Your task to perform on an android device: Go to notification settings Image 0: 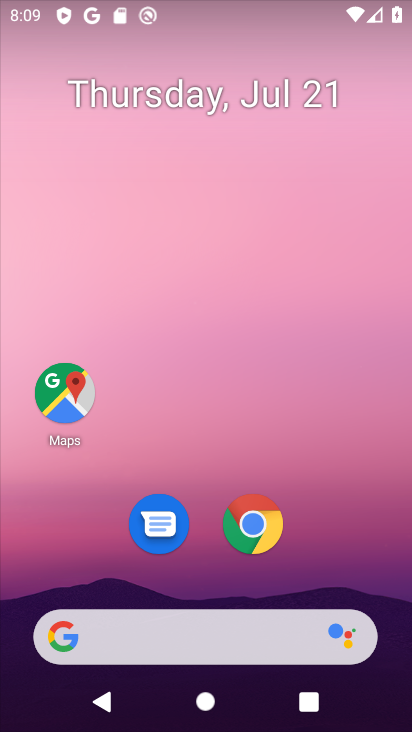
Step 0: press home button
Your task to perform on an android device: Go to notification settings Image 1: 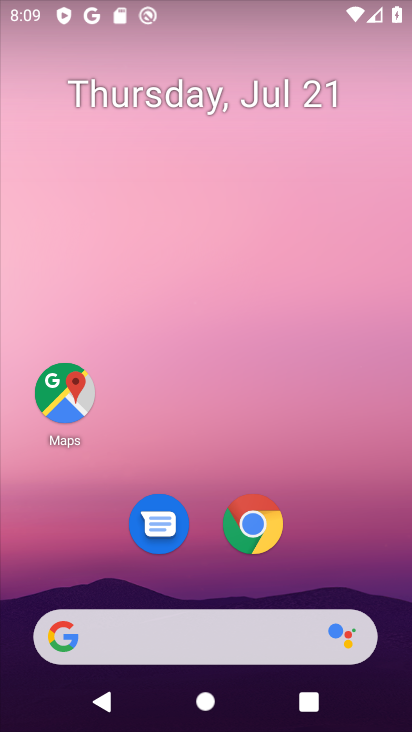
Step 1: drag from (214, 643) to (336, 64)
Your task to perform on an android device: Go to notification settings Image 2: 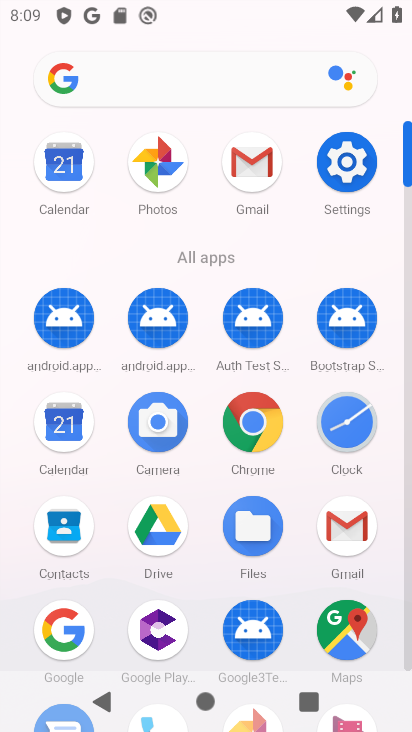
Step 2: click (350, 170)
Your task to perform on an android device: Go to notification settings Image 3: 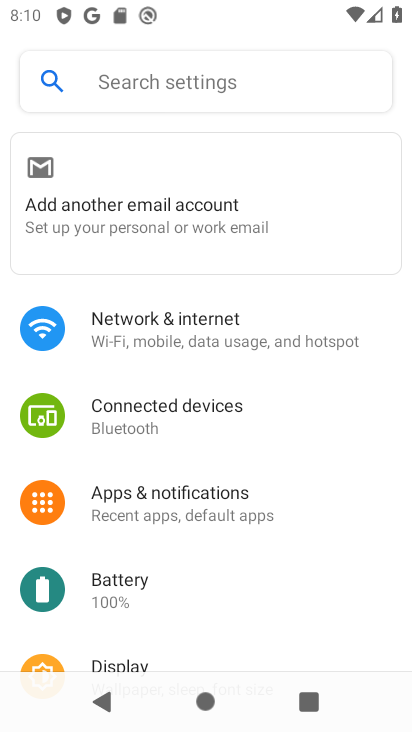
Step 3: click (210, 499)
Your task to perform on an android device: Go to notification settings Image 4: 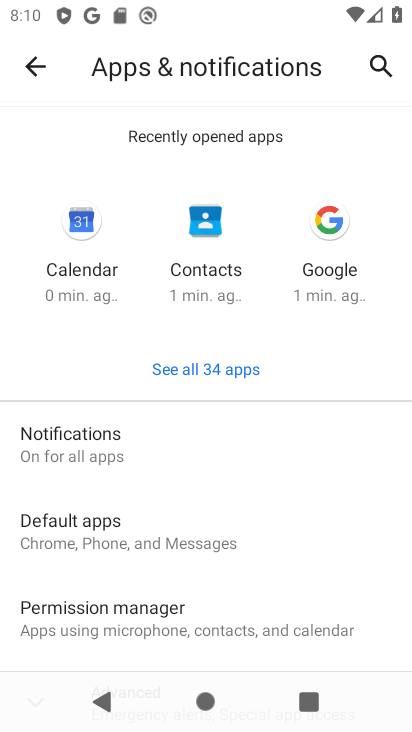
Step 4: click (87, 446)
Your task to perform on an android device: Go to notification settings Image 5: 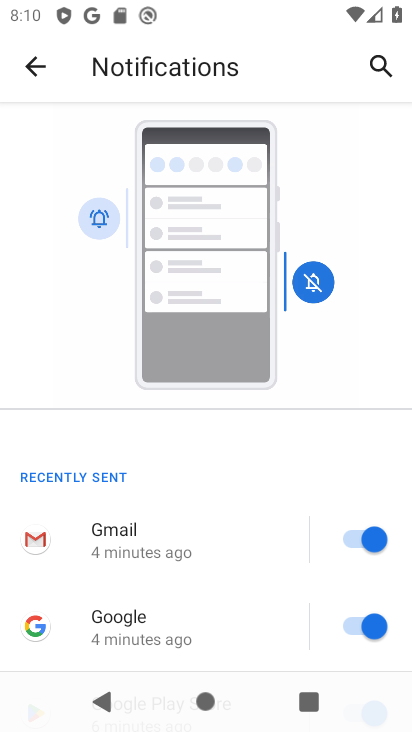
Step 5: task complete